Your task to perform on an android device: turn on improve location accuracy Image 0: 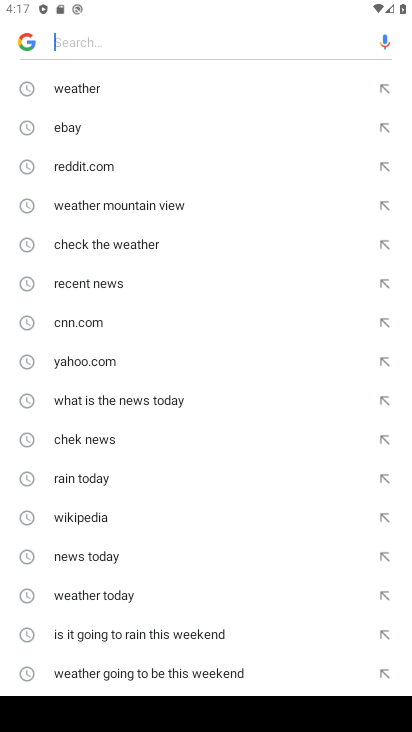
Step 0: press home button
Your task to perform on an android device: turn on improve location accuracy Image 1: 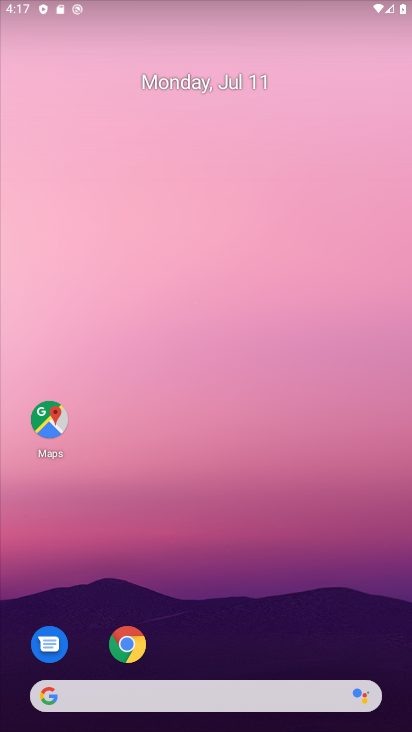
Step 1: drag from (195, 612) to (176, 150)
Your task to perform on an android device: turn on improve location accuracy Image 2: 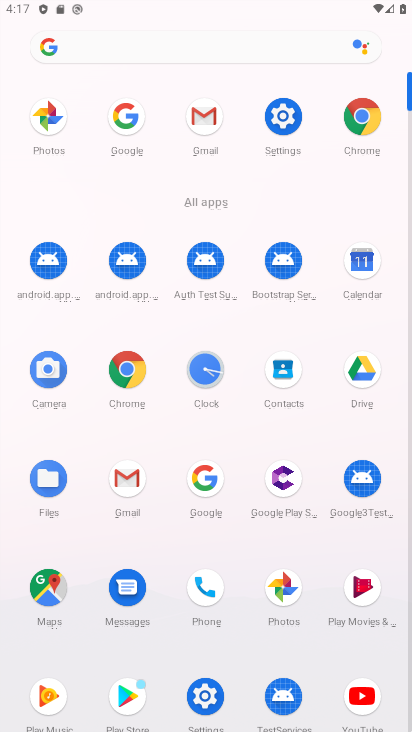
Step 2: click (286, 117)
Your task to perform on an android device: turn on improve location accuracy Image 3: 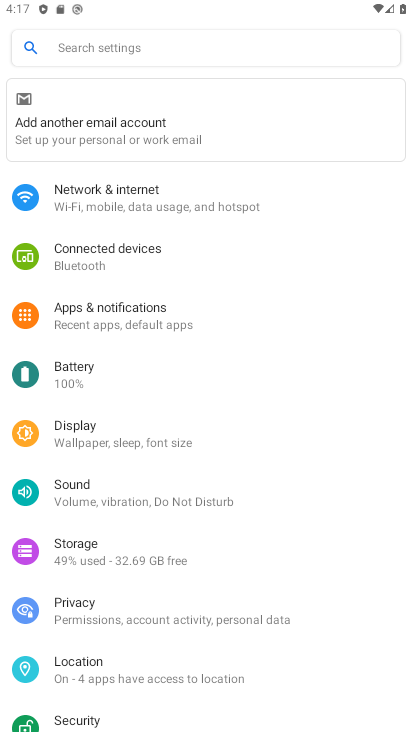
Step 3: click (88, 659)
Your task to perform on an android device: turn on improve location accuracy Image 4: 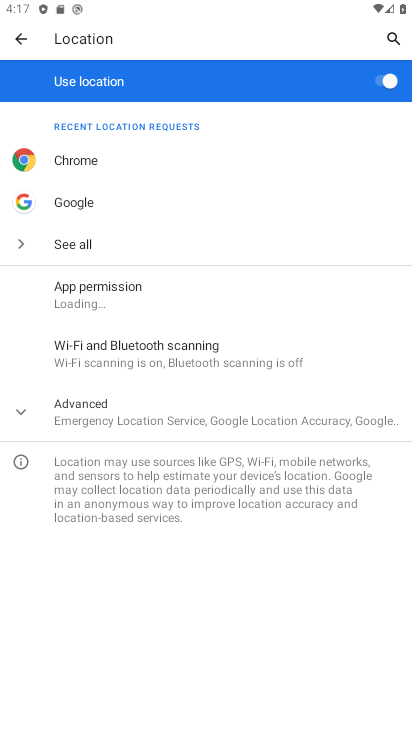
Step 4: click (110, 400)
Your task to perform on an android device: turn on improve location accuracy Image 5: 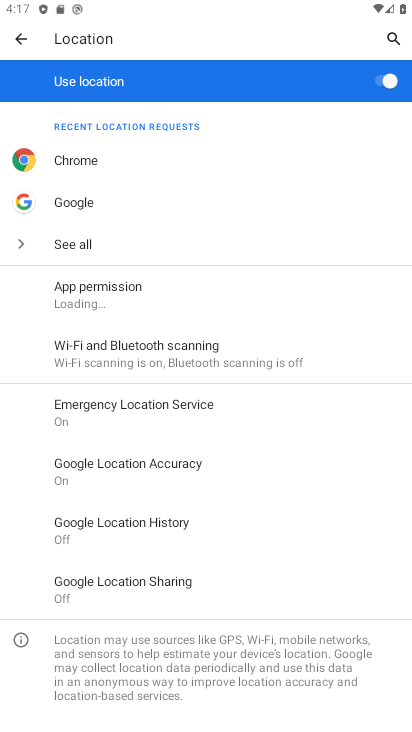
Step 5: click (135, 474)
Your task to perform on an android device: turn on improve location accuracy Image 6: 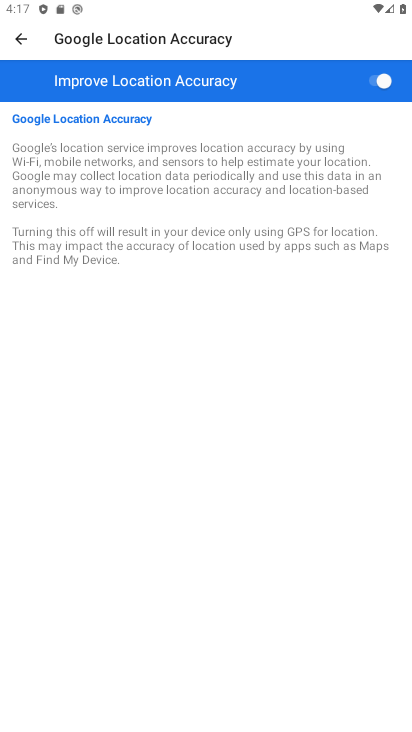
Step 6: task complete